Your task to perform on an android device: refresh tabs in the chrome app Image 0: 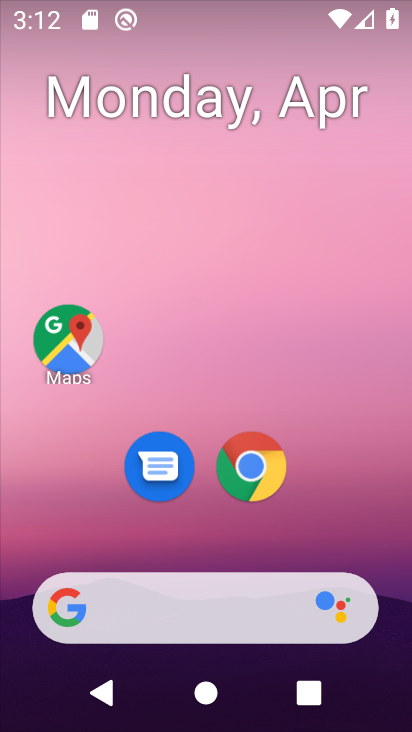
Step 0: click (255, 494)
Your task to perform on an android device: refresh tabs in the chrome app Image 1: 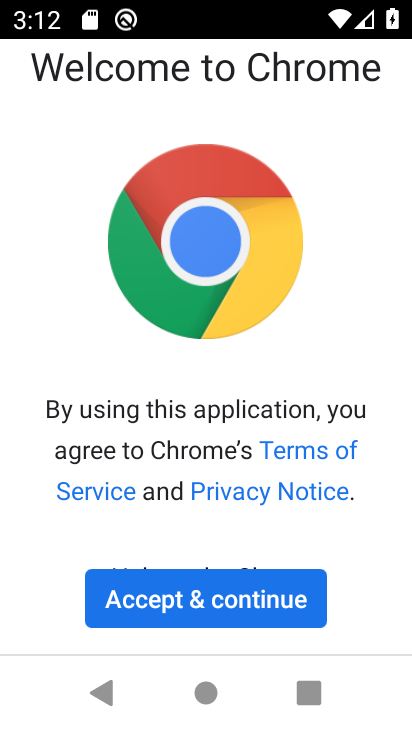
Step 1: click (279, 573)
Your task to perform on an android device: refresh tabs in the chrome app Image 2: 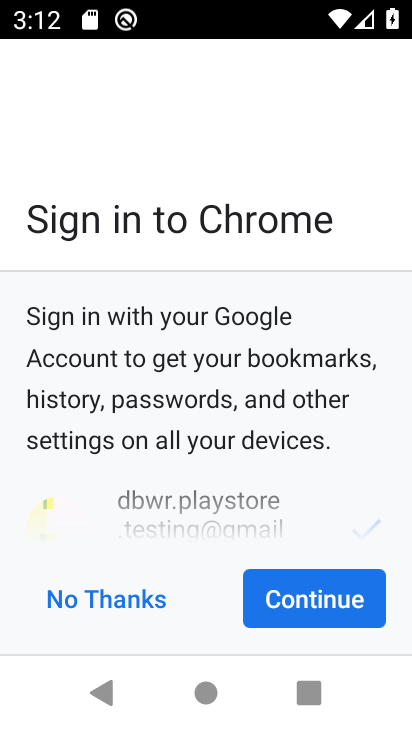
Step 2: click (279, 575)
Your task to perform on an android device: refresh tabs in the chrome app Image 3: 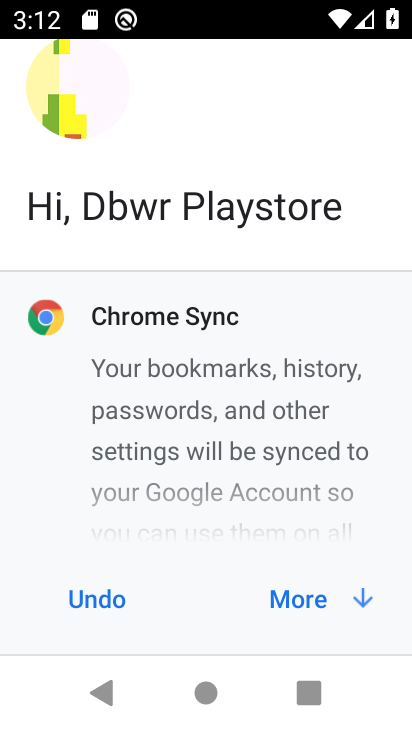
Step 3: click (296, 593)
Your task to perform on an android device: refresh tabs in the chrome app Image 4: 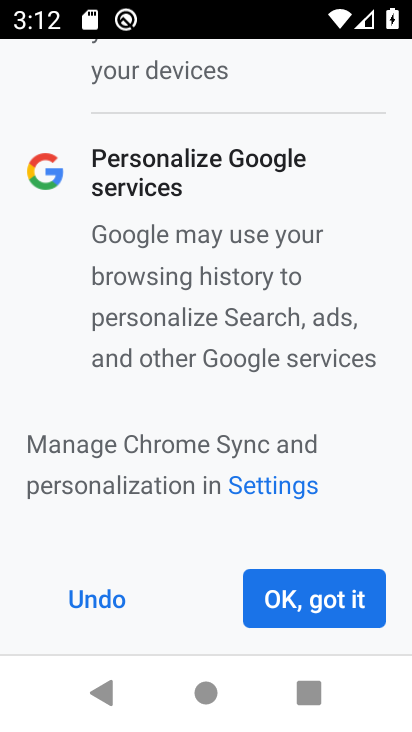
Step 4: click (296, 593)
Your task to perform on an android device: refresh tabs in the chrome app Image 5: 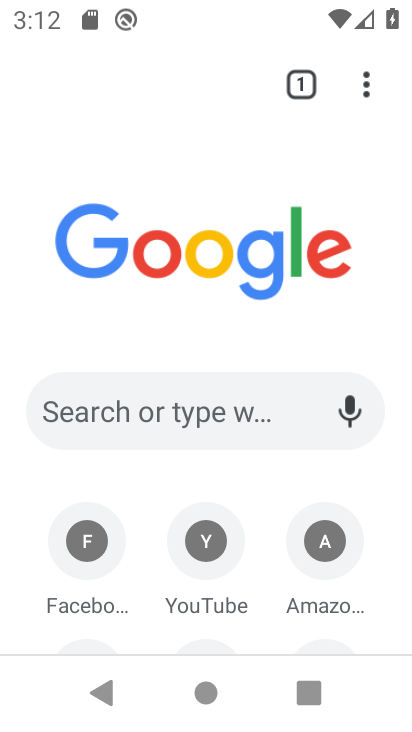
Step 5: click (371, 97)
Your task to perform on an android device: refresh tabs in the chrome app Image 6: 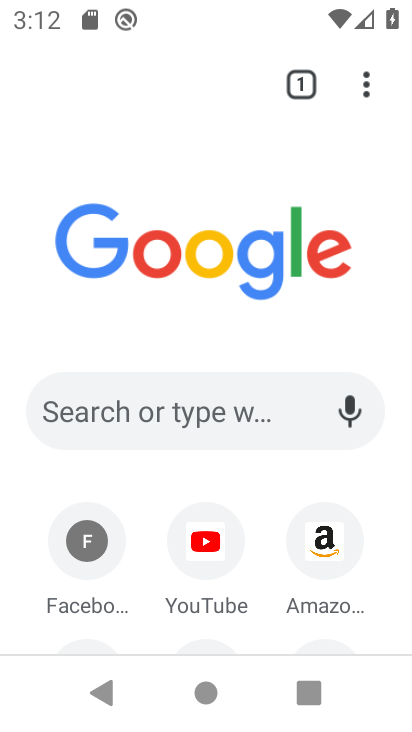
Step 6: click (375, 86)
Your task to perform on an android device: refresh tabs in the chrome app Image 7: 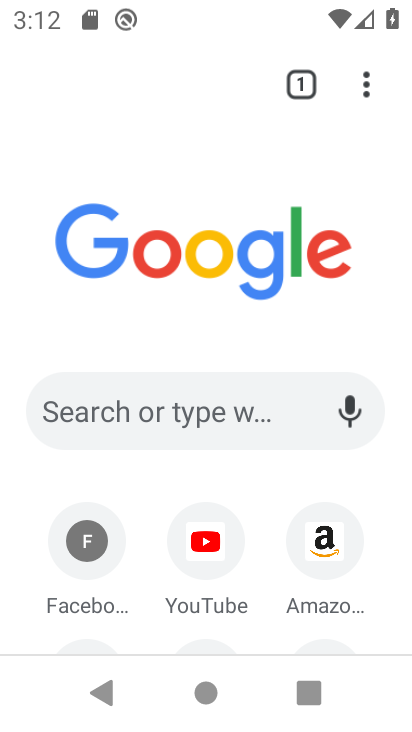
Step 7: click (364, 93)
Your task to perform on an android device: refresh tabs in the chrome app Image 8: 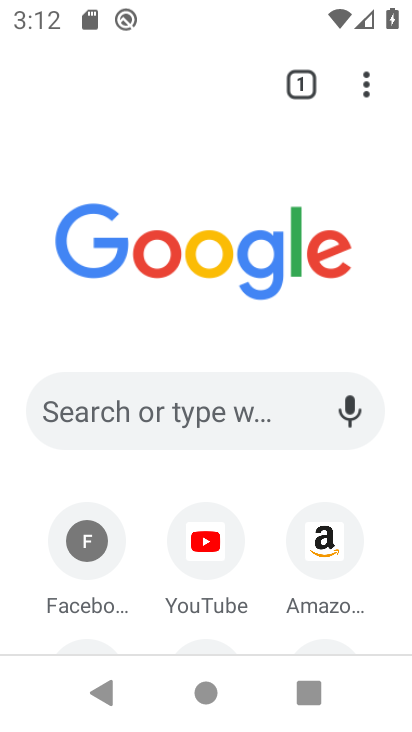
Step 8: click (365, 92)
Your task to perform on an android device: refresh tabs in the chrome app Image 9: 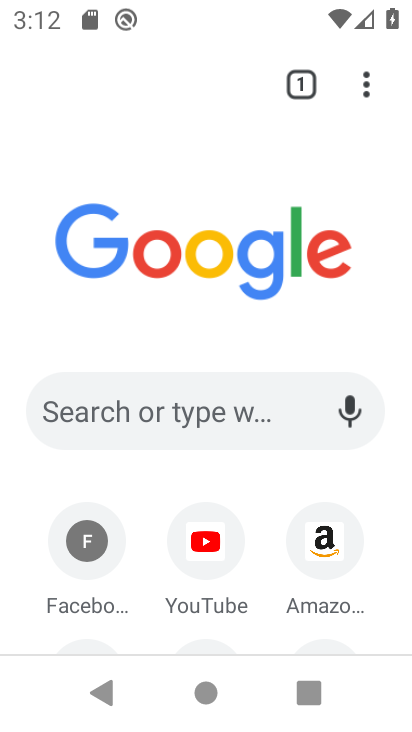
Step 9: task complete